Your task to perform on an android device: Clear all items from cart on ebay.com. Search for "alienware aurora" on ebay.com, select the first entry, and add it to the cart. Image 0: 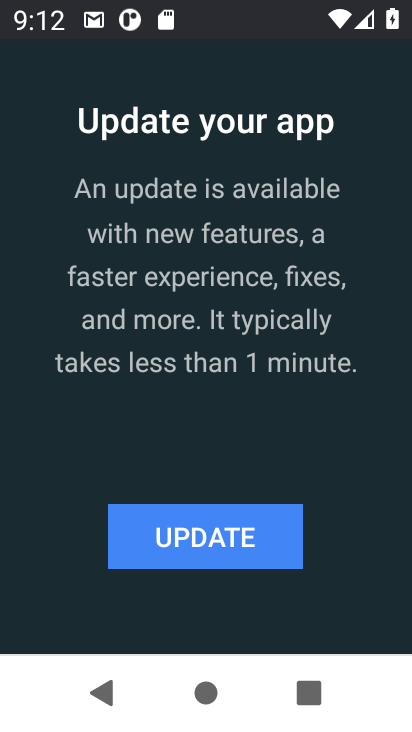
Step 0: press home button
Your task to perform on an android device: Clear all items from cart on ebay.com. Search for "alienware aurora" on ebay.com, select the first entry, and add it to the cart. Image 1: 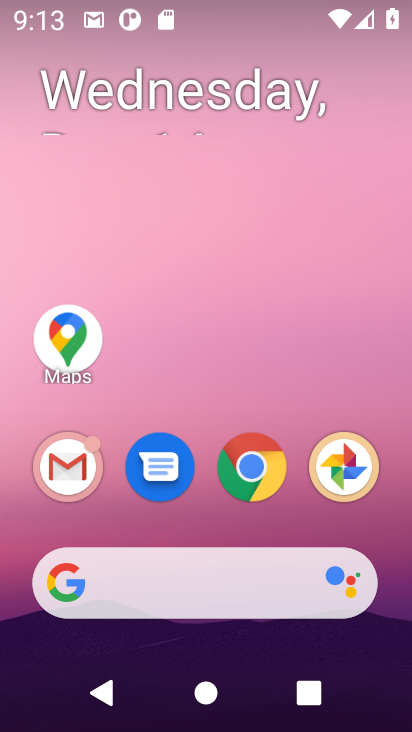
Step 1: click (245, 483)
Your task to perform on an android device: Clear all items from cart on ebay.com. Search for "alienware aurora" on ebay.com, select the first entry, and add it to the cart. Image 2: 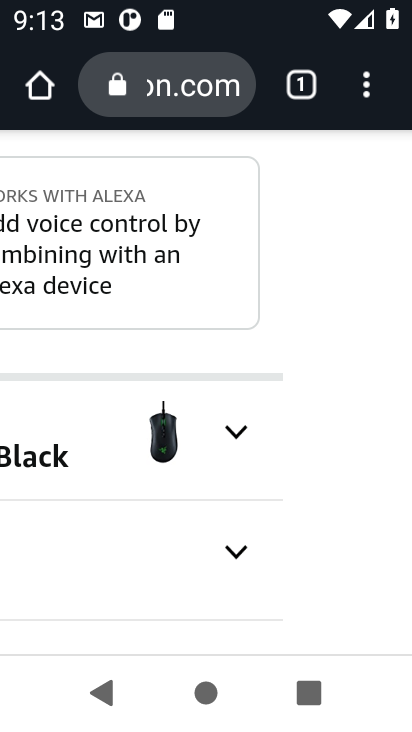
Step 2: press home button
Your task to perform on an android device: Clear all items from cart on ebay.com. Search for "alienware aurora" on ebay.com, select the first entry, and add it to the cart. Image 3: 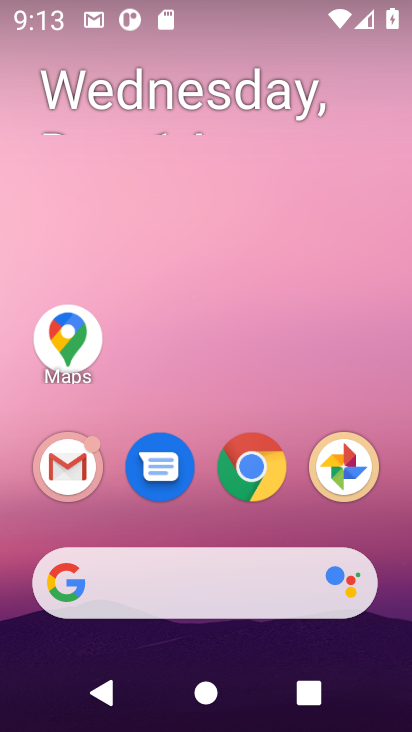
Step 3: click (249, 490)
Your task to perform on an android device: Clear all items from cart on ebay.com. Search for "alienware aurora" on ebay.com, select the first entry, and add it to the cart. Image 4: 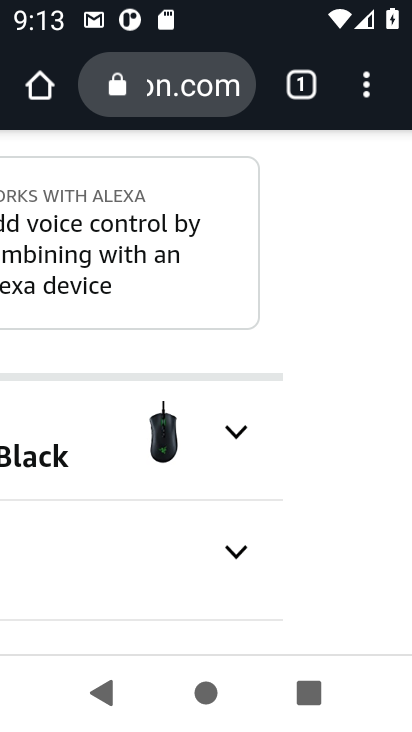
Step 4: click (178, 91)
Your task to perform on an android device: Clear all items from cart on ebay.com. Search for "alienware aurora" on ebay.com, select the first entry, and add it to the cart. Image 5: 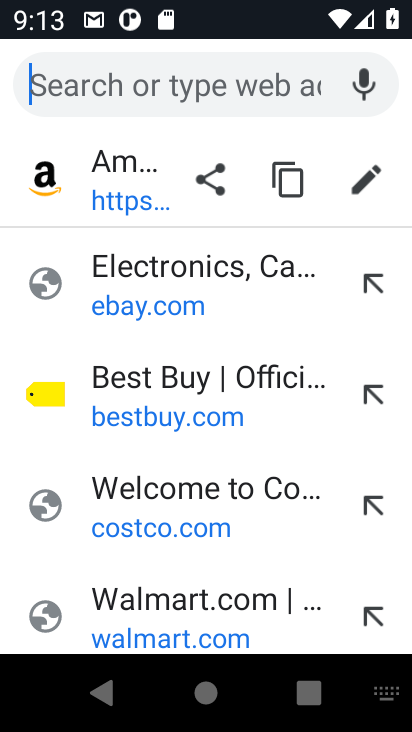
Step 5: type "ebay.com"
Your task to perform on an android device: Clear all items from cart on ebay.com. Search for "alienware aurora" on ebay.com, select the first entry, and add it to the cart. Image 6: 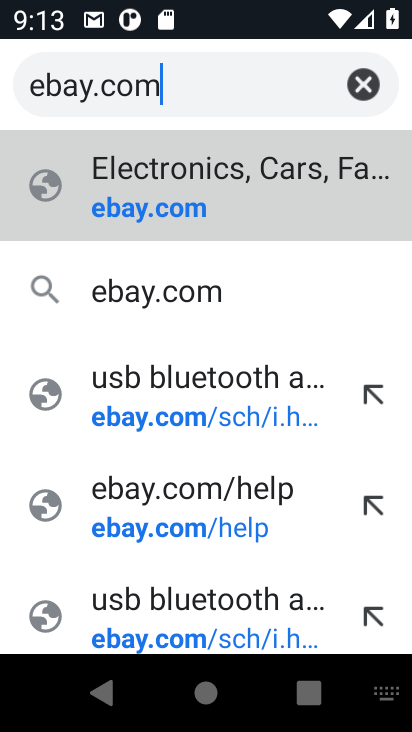
Step 6: click (157, 199)
Your task to perform on an android device: Clear all items from cart on ebay.com. Search for "alienware aurora" on ebay.com, select the first entry, and add it to the cart. Image 7: 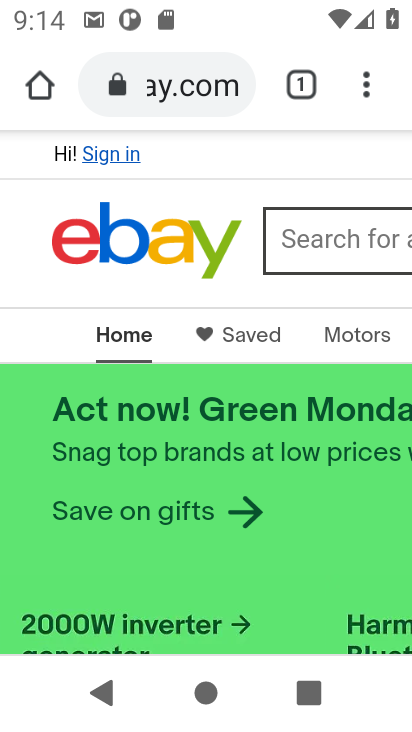
Step 7: click (294, 256)
Your task to perform on an android device: Clear all items from cart on ebay.com. Search for "alienware aurora" on ebay.com, select the first entry, and add it to the cart. Image 8: 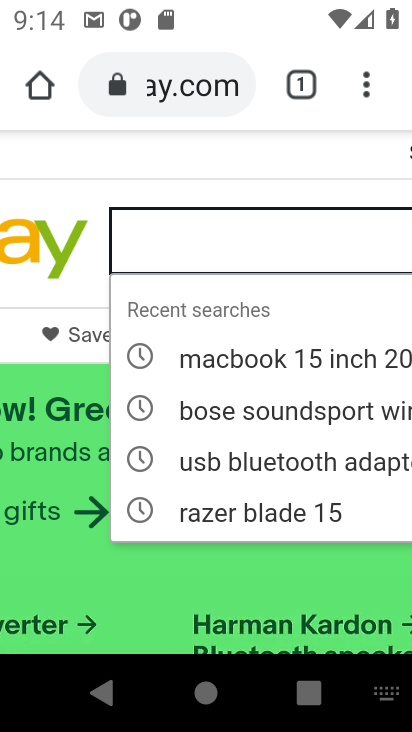
Step 8: type "alienware aurora"
Your task to perform on an android device: Clear all items from cart on ebay.com. Search for "alienware aurora" on ebay.com, select the first entry, and add it to the cart. Image 9: 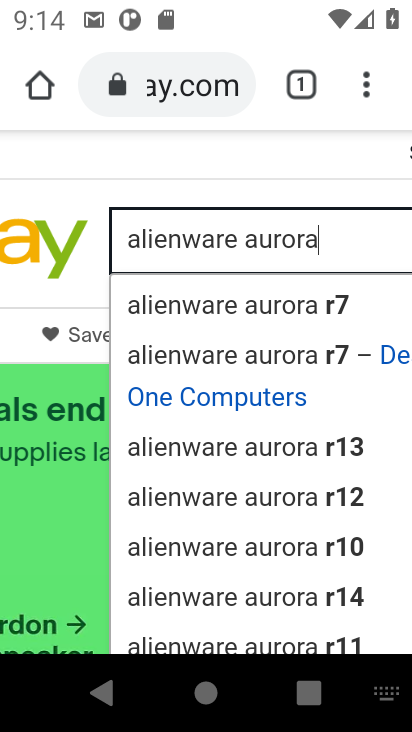
Step 9: click (252, 303)
Your task to perform on an android device: Clear all items from cart on ebay.com. Search for "alienware aurora" on ebay.com, select the first entry, and add it to the cart. Image 10: 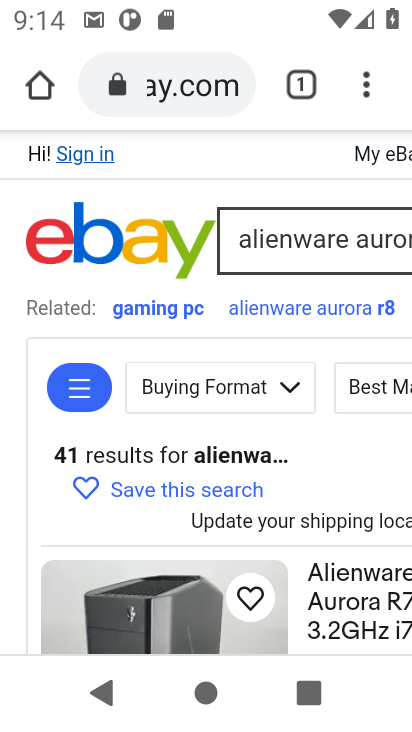
Step 10: click (316, 579)
Your task to perform on an android device: Clear all items from cart on ebay.com. Search for "alienware aurora" on ebay.com, select the first entry, and add it to the cart. Image 11: 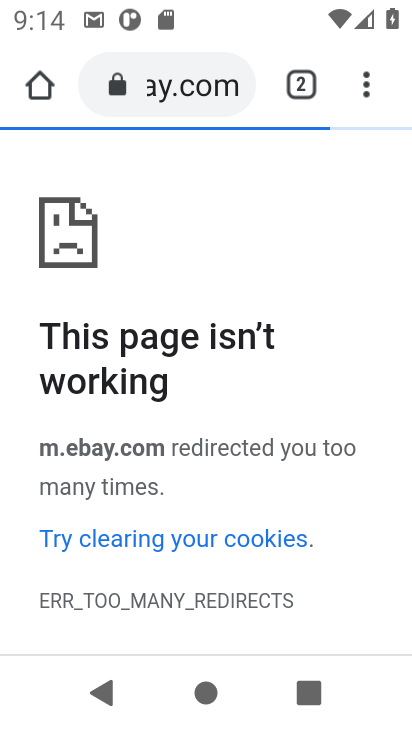
Step 11: task complete